Your task to perform on an android device: turn on the 24-hour format for clock Image 0: 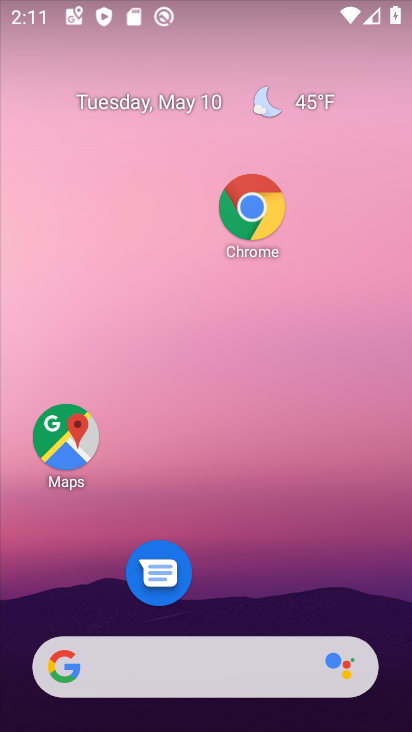
Step 0: drag from (269, 593) to (289, 1)
Your task to perform on an android device: turn on the 24-hour format for clock Image 1: 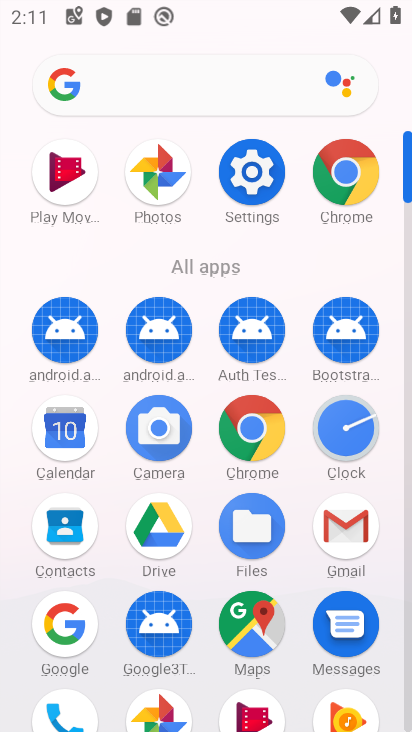
Step 1: click (344, 423)
Your task to perform on an android device: turn on the 24-hour format for clock Image 2: 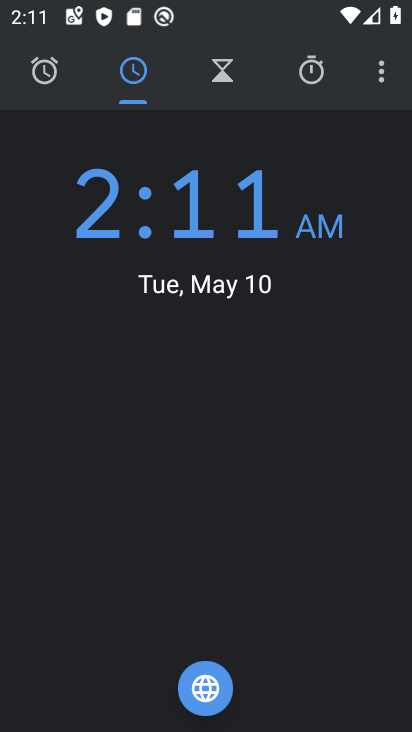
Step 2: press home button
Your task to perform on an android device: turn on the 24-hour format for clock Image 3: 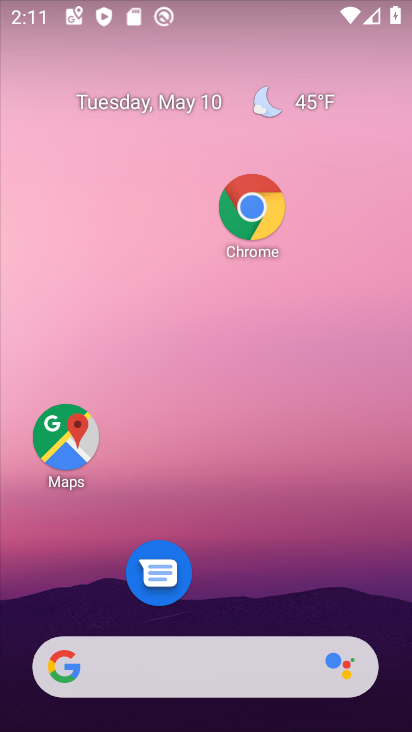
Step 3: drag from (229, 571) to (249, 3)
Your task to perform on an android device: turn on the 24-hour format for clock Image 4: 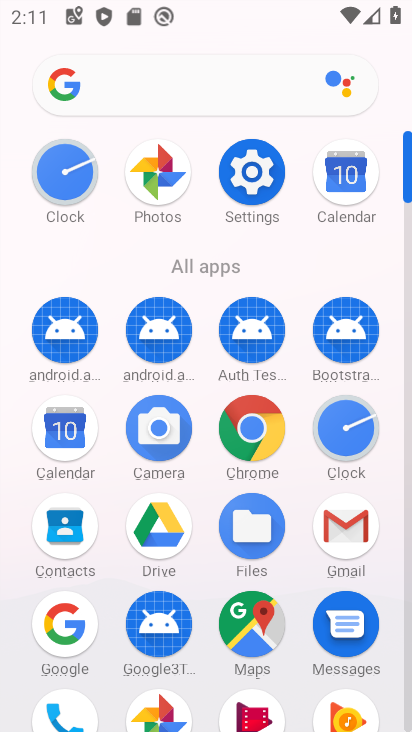
Step 4: click (264, 206)
Your task to perform on an android device: turn on the 24-hour format for clock Image 5: 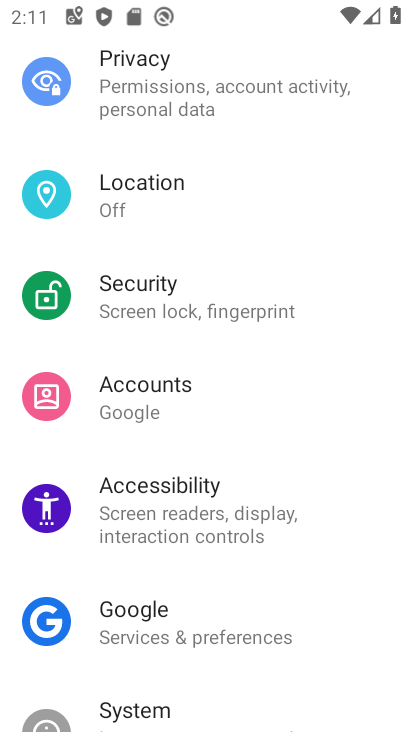
Step 5: drag from (183, 587) to (257, 106)
Your task to perform on an android device: turn on the 24-hour format for clock Image 6: 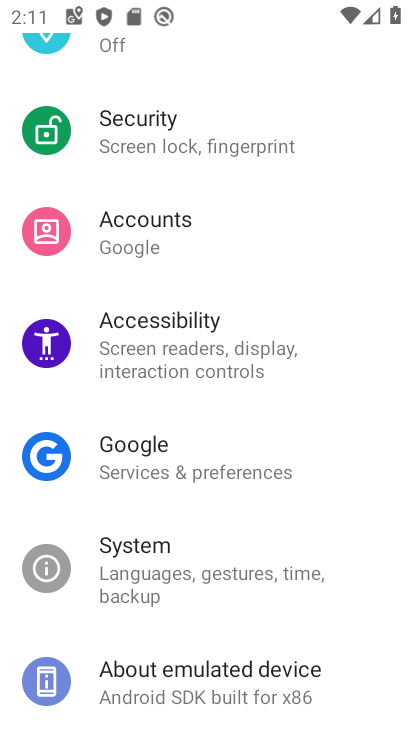
Step 6: click (181, 572)
Your task to perform on an android device: turn on the 24-hour format for clock Image 7: 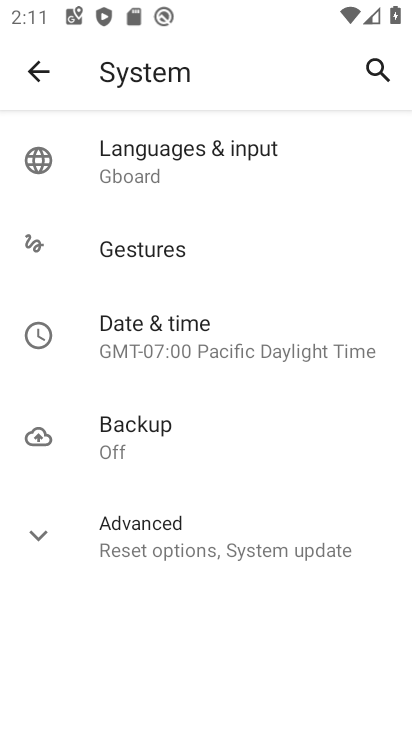
Step 7: click (184, 351)
Your task to perform on an android device: turn on the 24-hour format for clock Image 8: 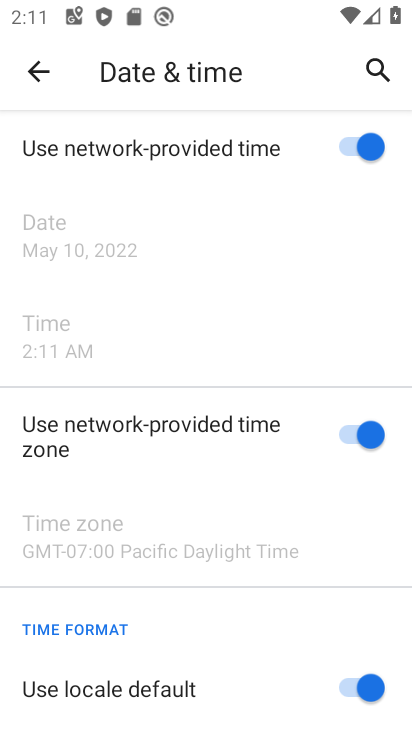
Step 8: drag from (229, 432) to (279, 138)
Your task to perform on an android device: turn on the 24-hour format for clock Image 9: 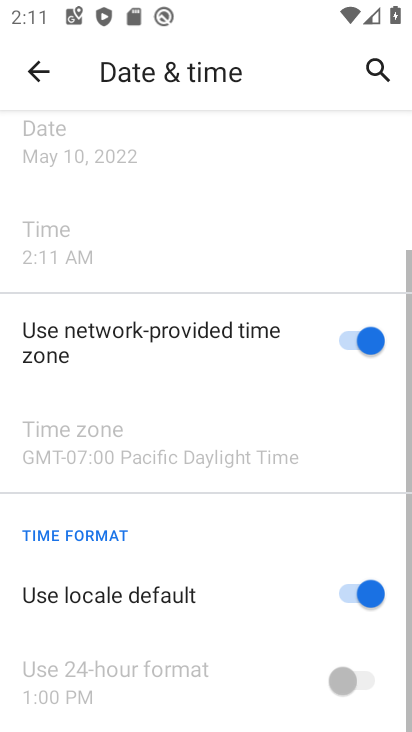
Step 9: click (327, 102)
Your task to perform on an android device: turn on the 24-hour format for clock Image 10: 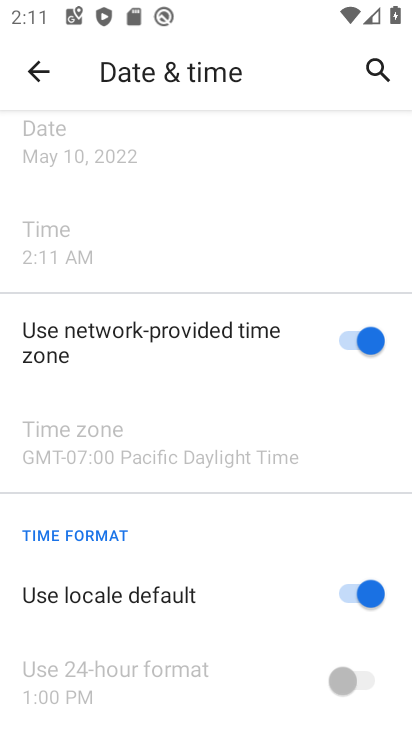
Step 10: drag from (244, 609) to (263, 114)
Your task to perform on an android device: turn on the 24-hour format for clock Image 11: 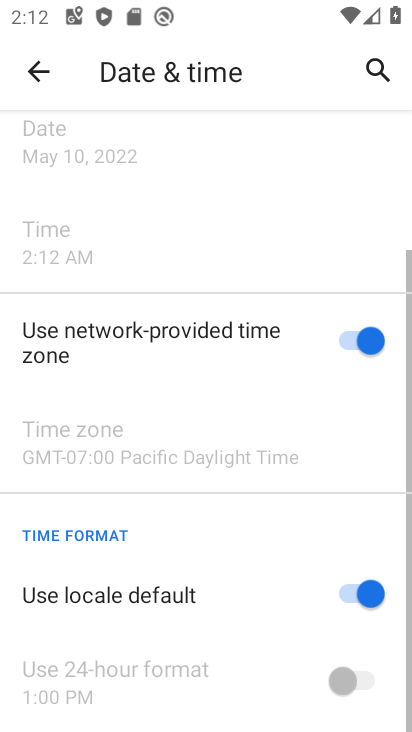
Step 11: click (348, 602)
Your task to perform on an android device: turn on the 24-hour format for clock Image 12: 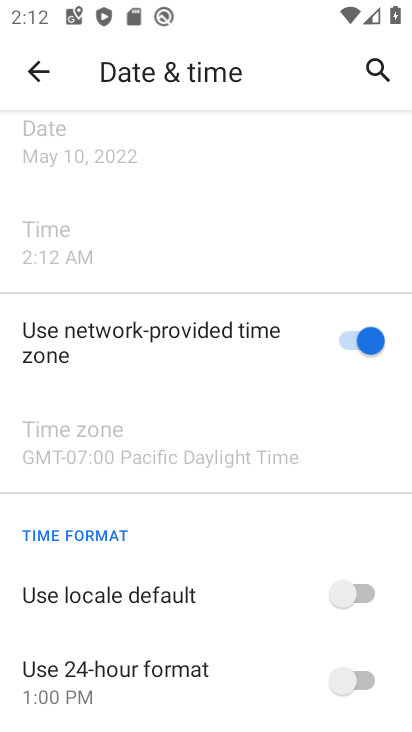
Step 12: click (373, 680)
Your task to perform on an android device: turn on the 24-hour format for clock Image 13: 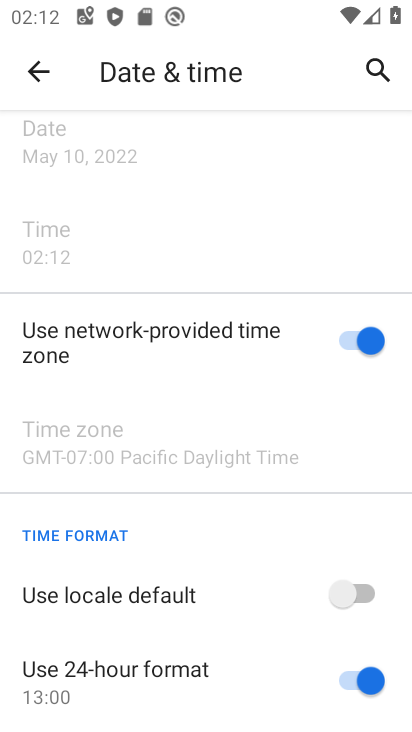
Step 13: task complete